Your task to perform on an android device: allow cookies in the chrome app Image 0: 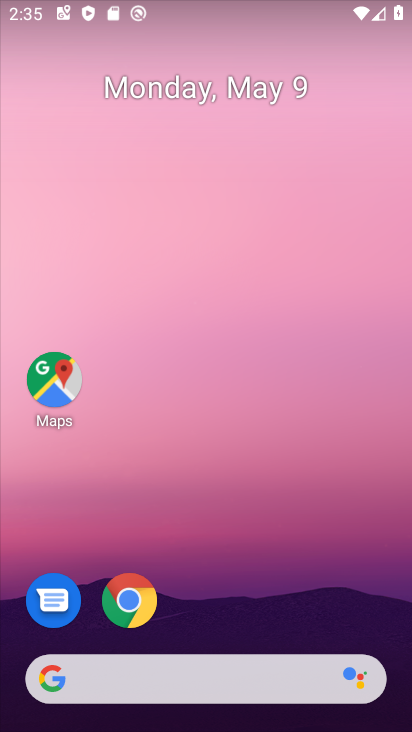
Step 0: click (134, 594)
Your task to perform on an android device: allow cookies in the chrome app Image 1: 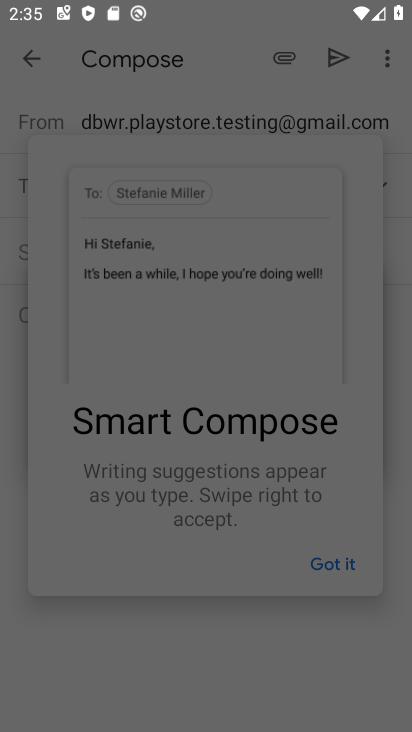
Step 1: press back button
Your task to perform on an android device: allow cookies in the chrome app Image 2: 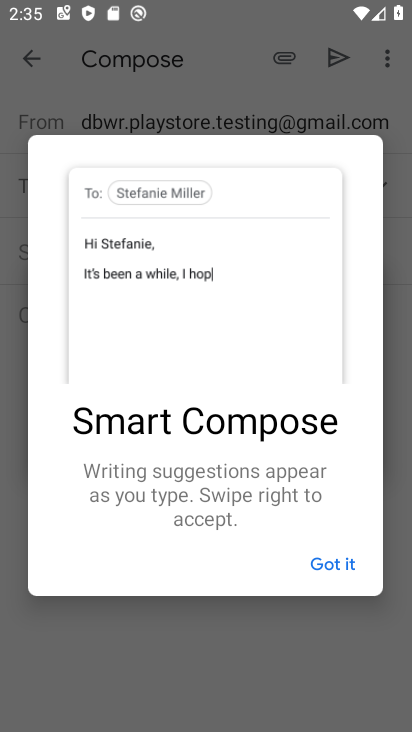
Step 2: press home button
Your task to perform on an android device: allow cookies in the chrome app Image 3: 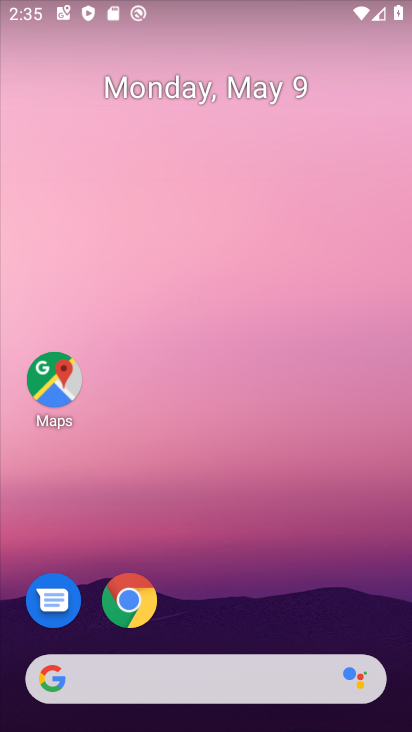
Step 3: click (129, 605)
Your task to perform on an android device: allow cookies in the chrome app Image 4: 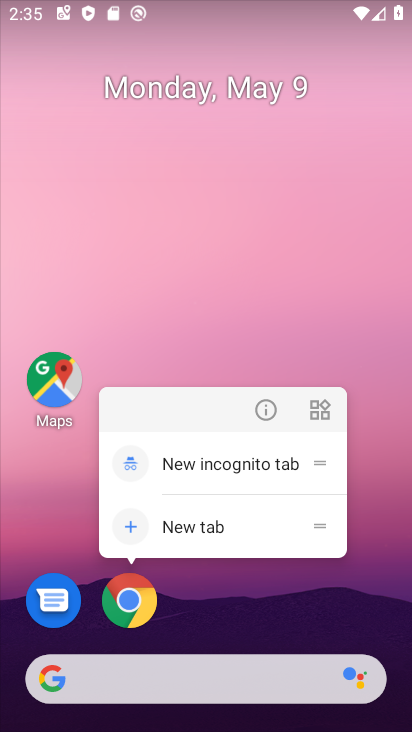
Step 4: click (139, 592)
Your task to perform on an android device: allow cookies in the chrome app Image 5: 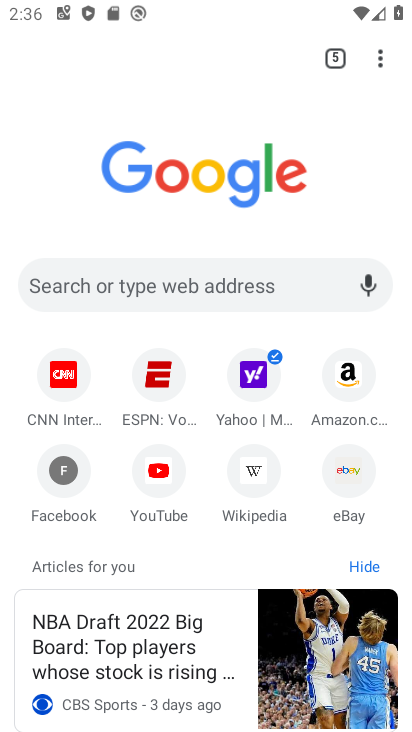
Step 5: drag from (388, 54) to (203, 479)
Your task to perform on an android device: allow cookies in the chrome app Image 6: 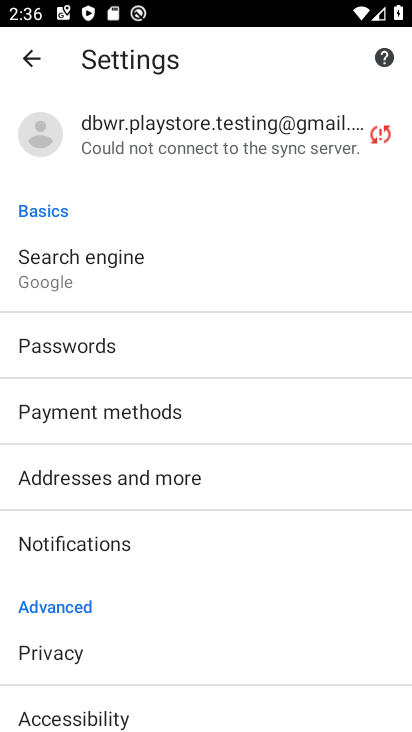
Step 6: drag from (112, 670) to (202, 146)
Your task to perform on an android device: allow cookies in the chrome app Image 7: 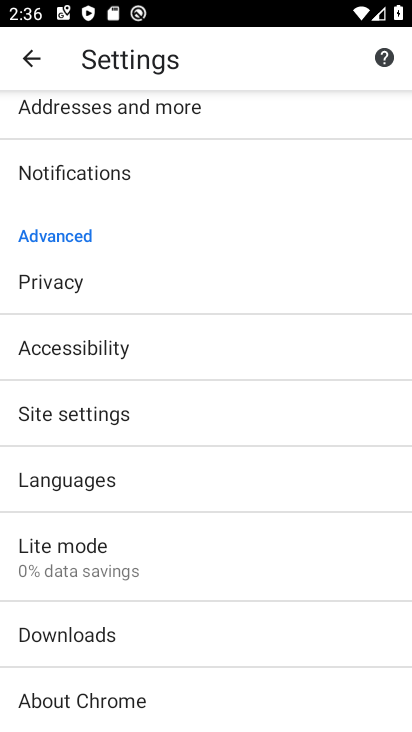
Step 7: click (130, 400)
Your task to perform on an android device: allow cookies in the chrome app Image 8: 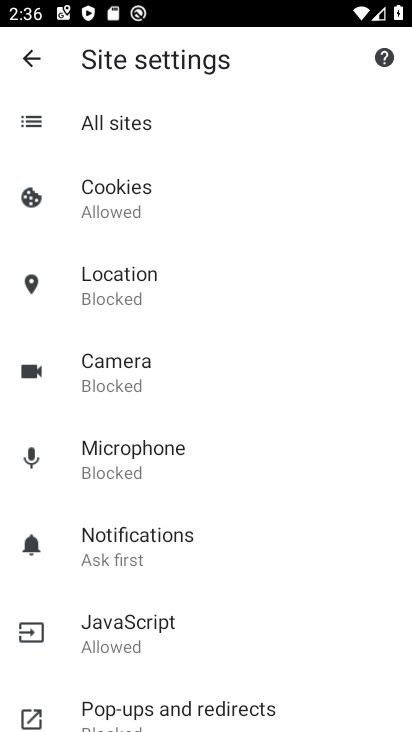
Step 8: click (167, 196)
Your task to perform on an android device: allow cookies in the chrome app Image 9: 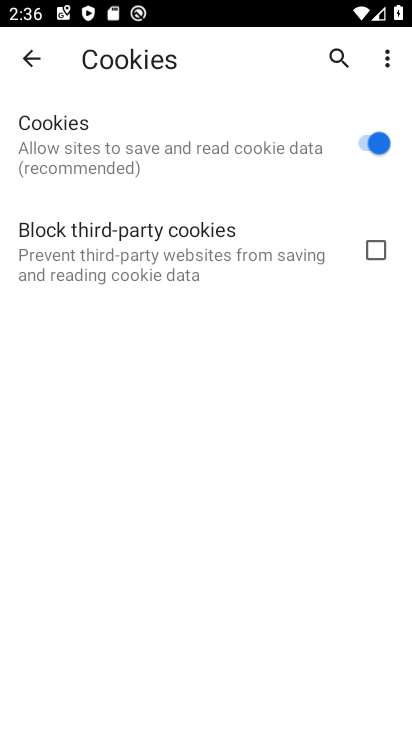
Step 9: task complete